Your task to perform on an android device: Open Chrome and go to settings Image 0: 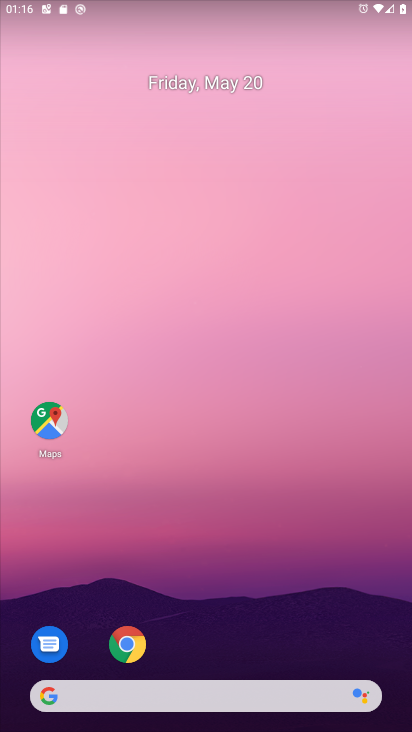
Step 0: click (134, 640)
Your task to perform on an android device: Open Chrome and go to settings Image 1: 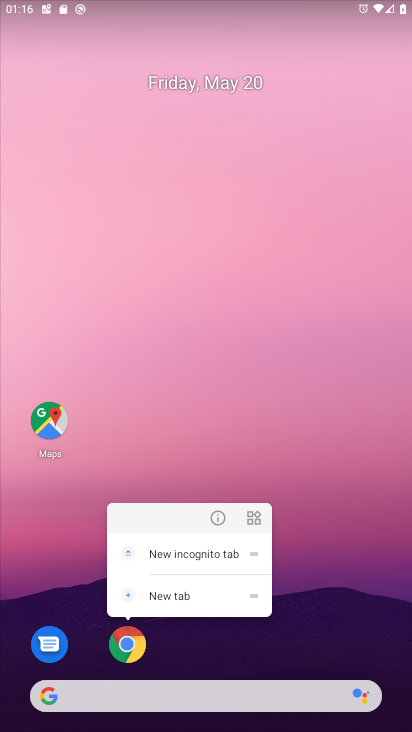
Step 1: click (133, 640)
Your task to perform on an android device: Open Chrome and go to settings Image 2: 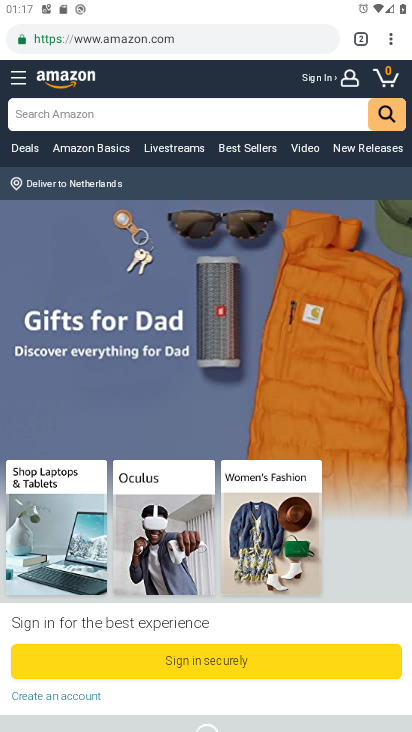
Step 2: click (388, 40)
Your task to perform on an android device: Open Chrome and go to settings Image 3: 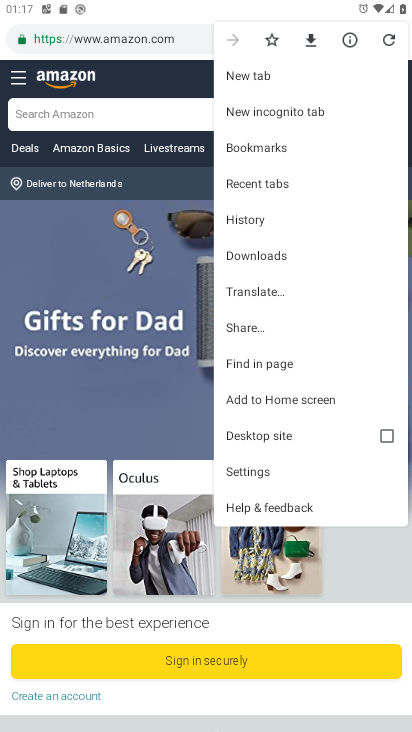
Step 3: click (247, 470)
Your task to perform on an android device: Open Chrome and go to settings Image 4: 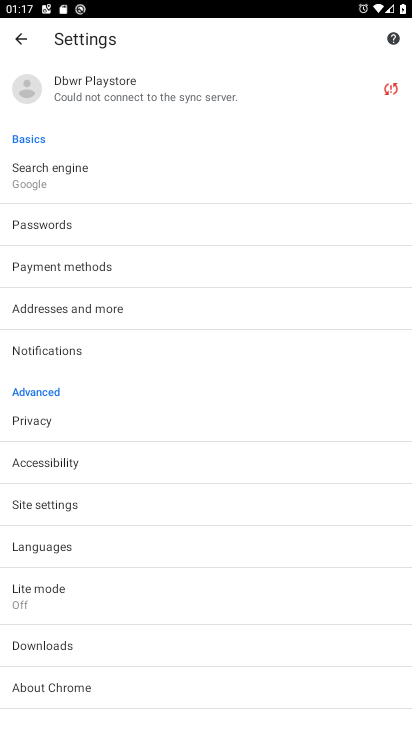
Step 4: task complete